Your task to perform on an android device: turn on airplane mode Image 0: 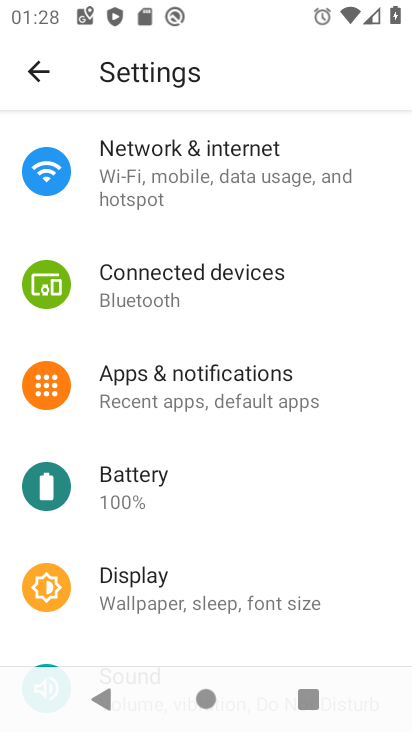
Step 0: click (178, 181)
Your task to perform on an android device: turn on airplane mode Image 1: 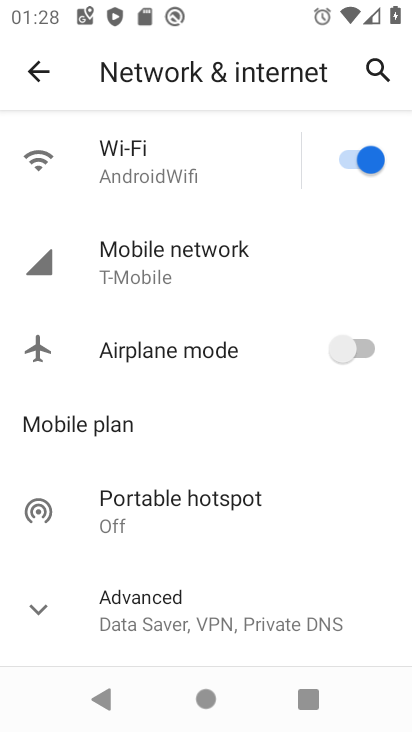
Step 1: click (356, 347)
Your task to perform on an android device: turn on airplane mode Image 2: 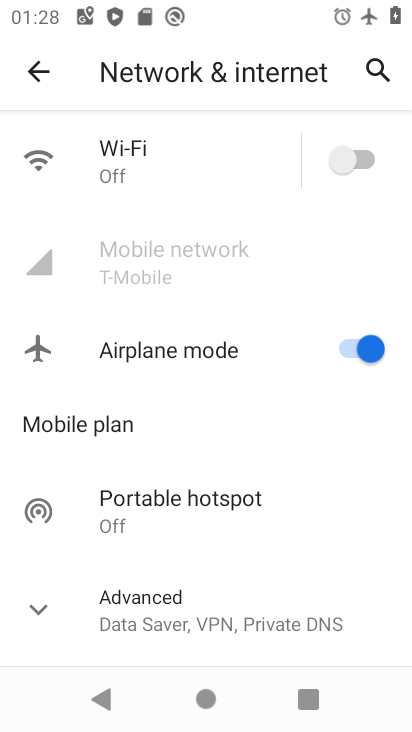
Step 2: task complete